Your task to perform on an android device: delete browsing data in the chrome app Image 0: 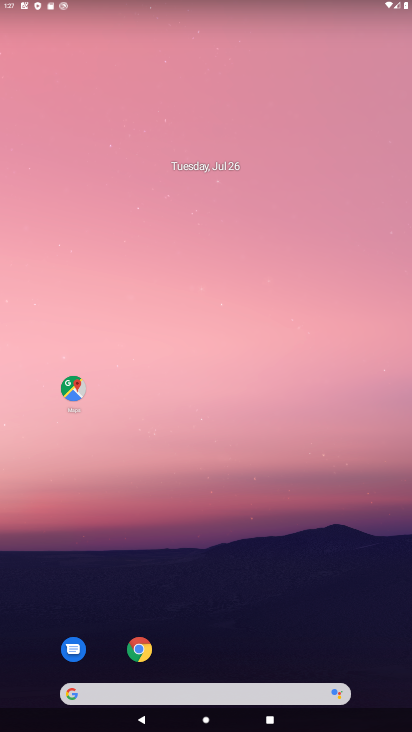
Step 0: press home button
Your task to perform on an android device: delete browsing data in the chrome app Image 1: 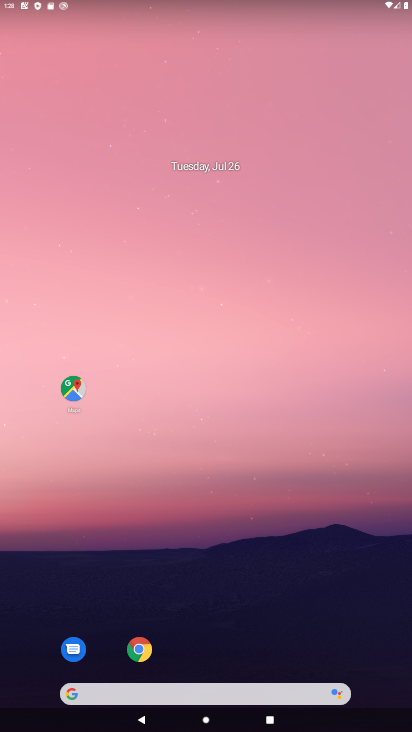
Step 1: click (135, 644)
Your task to perform on an android device: delete browsing data in the chrome app Image 2: 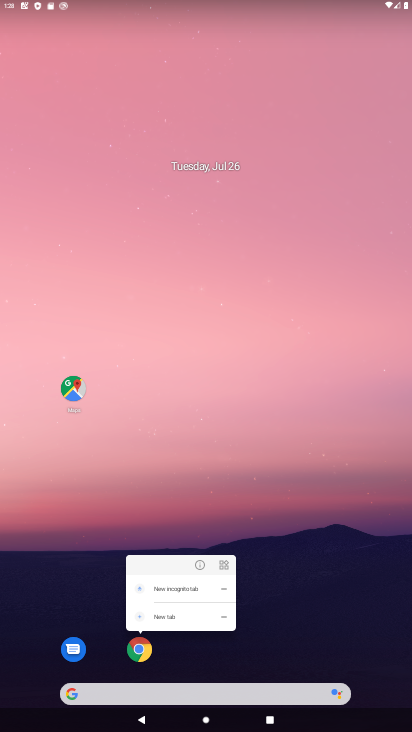
Step 2: click (136, 645)
Your task to perform on an android device: delete browsing data in the chrome app Image 3: 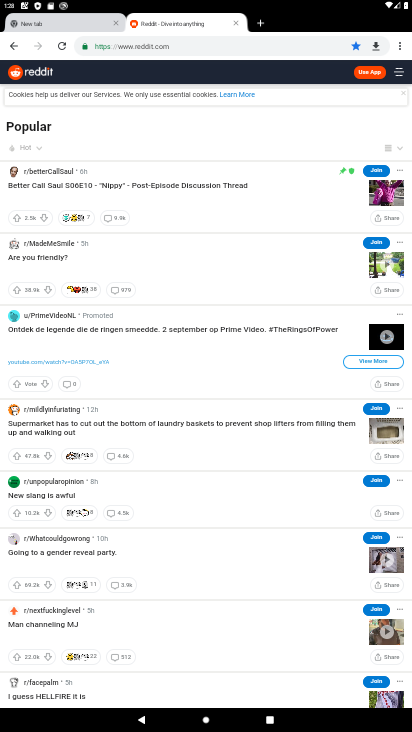
Step 3: click (397, 43)
Your task to perform on an android device: delete browsing data in the chrome app Image 4: 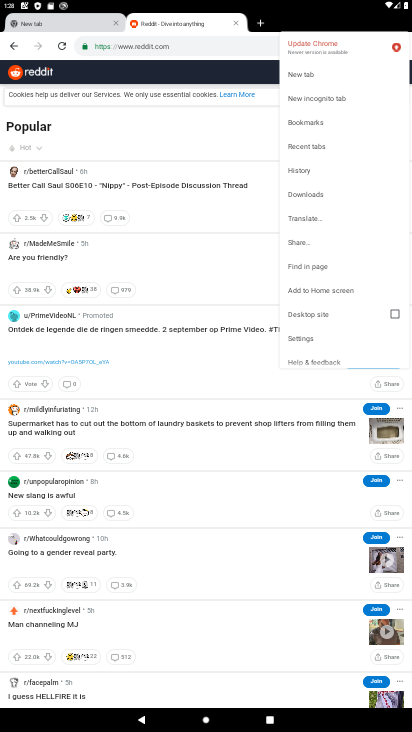
Step 4: click (319, 171)
Your task to perform on an android device: delete browsing data in the chrome app Image 5: 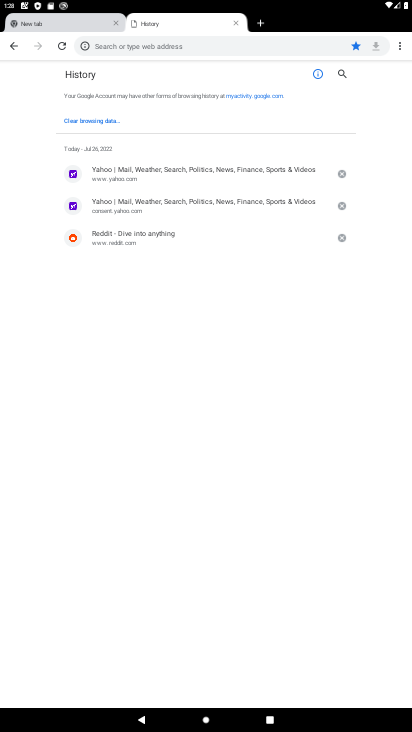
Step 5: click (94, 119)
Your task to perform on an android device: delete browsing data in the chrome app Image 6: 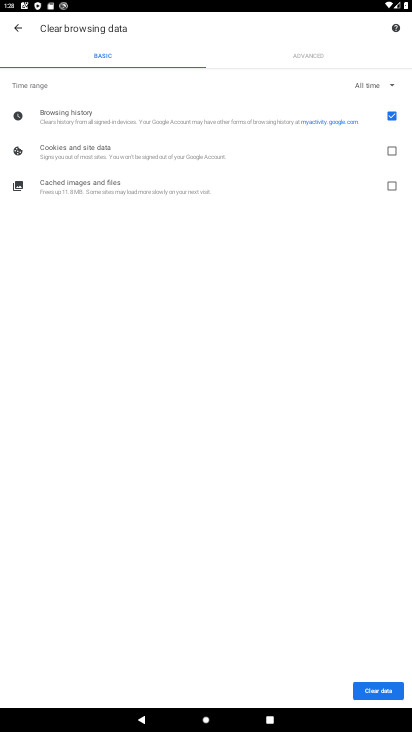
Step 6: click (376, 690)
Your task to perform on an android device: delete browsing data in the chrome app Image 7: 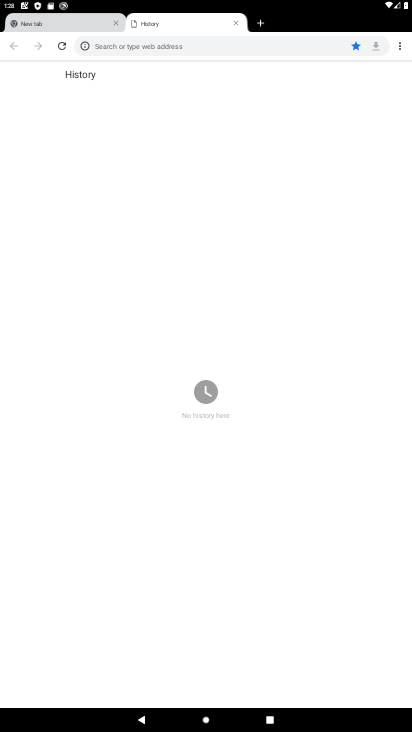
Step 7: task complete